Your task to perform on an android device: set the timer Image 0: 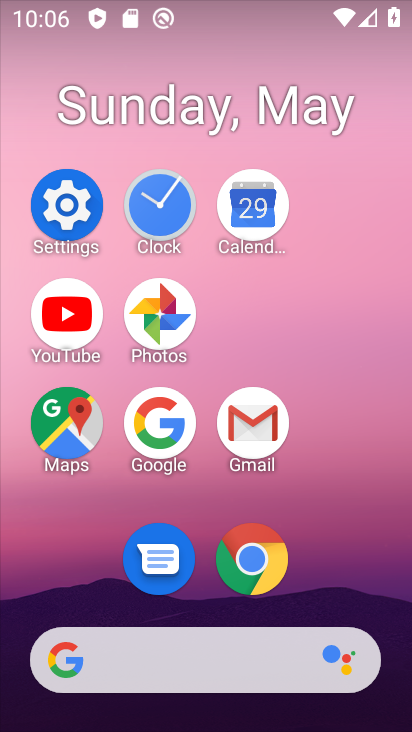
Step 0: click (174, 200)
Your task to perform on an android device: set the timer Image 1: 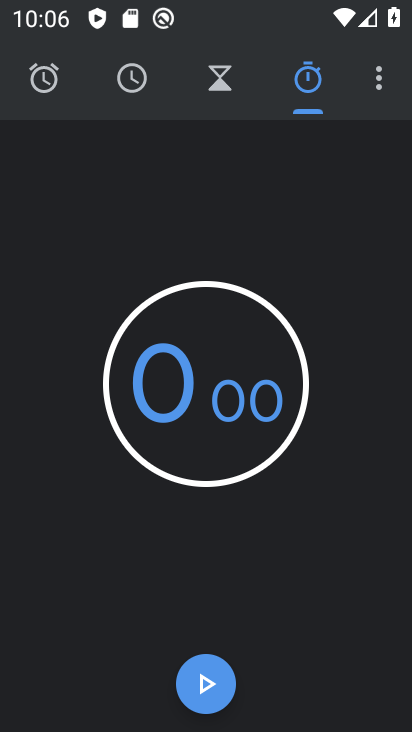
Step 1: click (119, 78)
Your task to perform on an android device: set the timer Image 2: 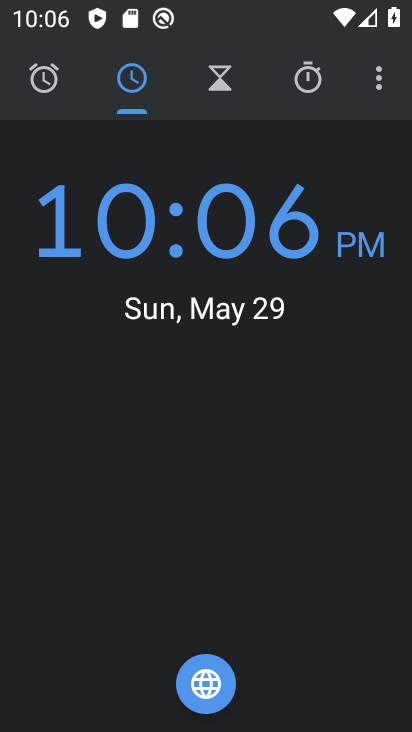
Step 2: click (216, 92)
Your task to perform on an android device: set the timer Image 3: 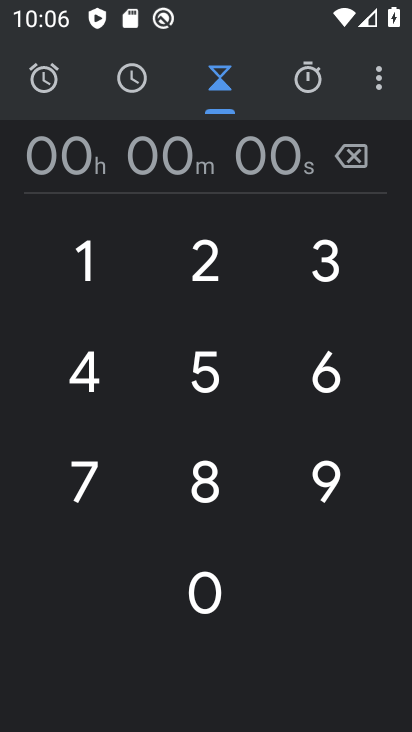
Step 3: click (209, 265)
Your task to perform on an android device: set the timer Image 4: 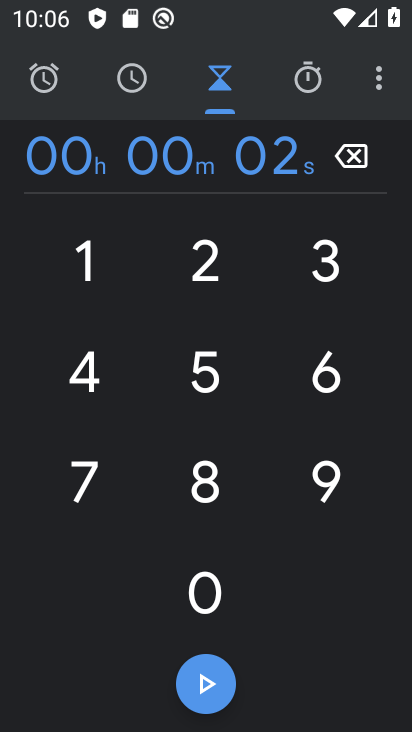
Step 4: click (219, 696)
Your task to perform on an android device: set the timer Image 5: 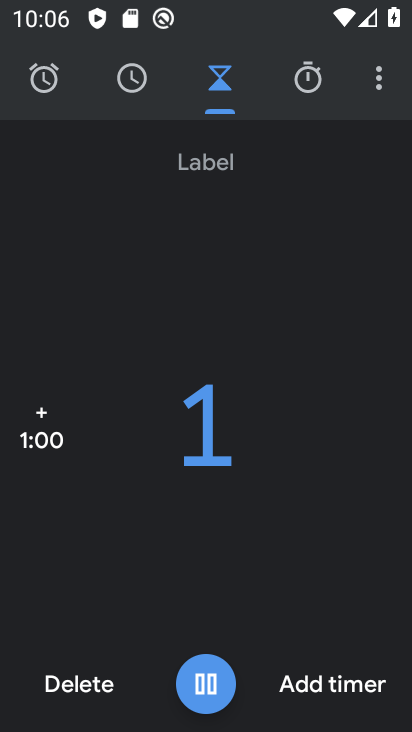
Step 5: task complete